Your task to perform on an android device: find photos in the google photos app Image 0: 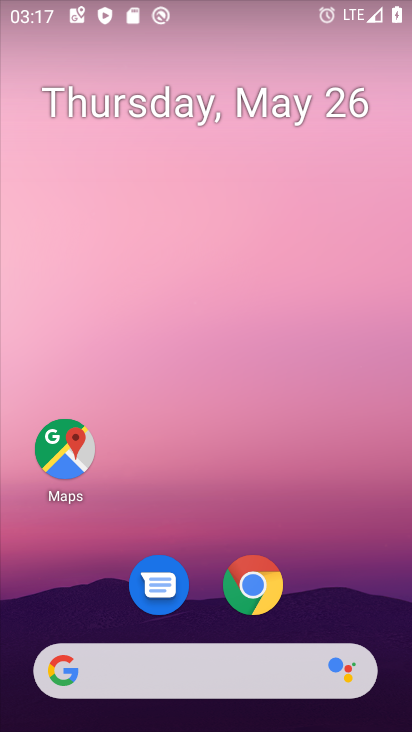
Step 0: drag from (210, 517) to (235, 132)
Your task to perform on an android device: find photos in the google photos app Image 1: 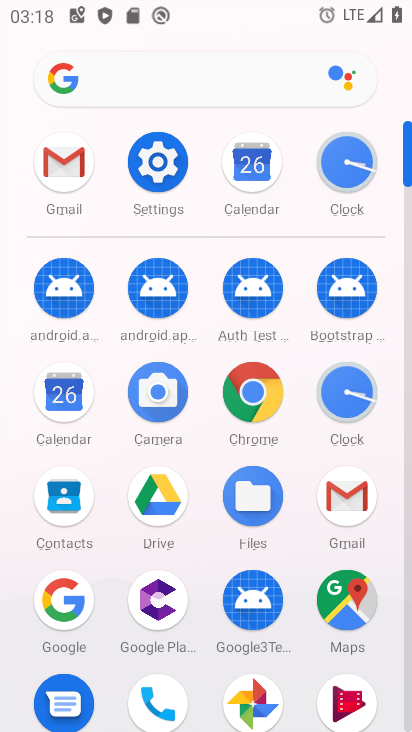
Step 1: click (255, 690)
Your task to perform on an android device: find photos in the google photos app Image 2: 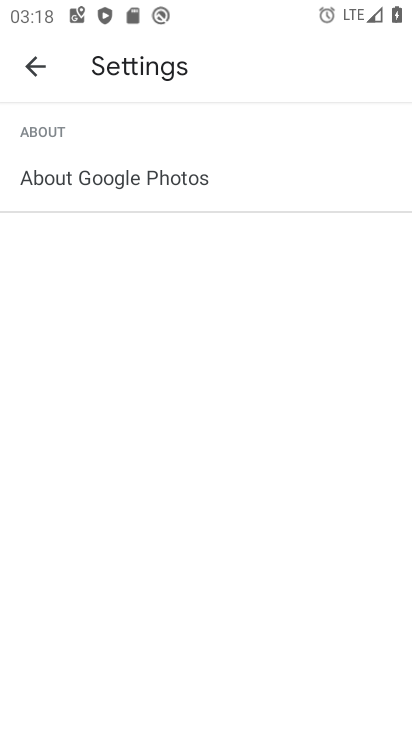
Step 2: click (34, 61)
Your task to perform on an android device: find photos in the google photos app Image 3: 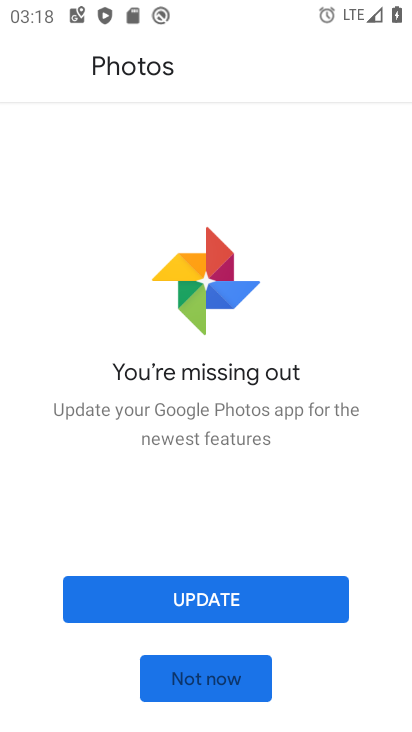
Step 3: click (184, 674)
Your task to perform on an android device: find photos in the google photos app Image 4: 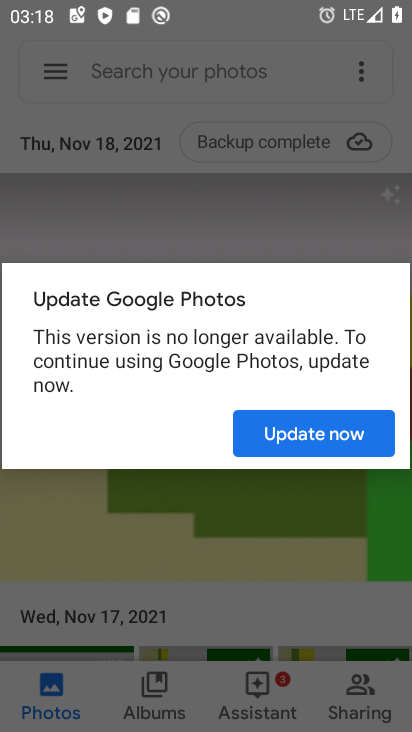
Step 4: click (341, 438)
Your task to perform on an android device: find photos in the google photos app Image 5: 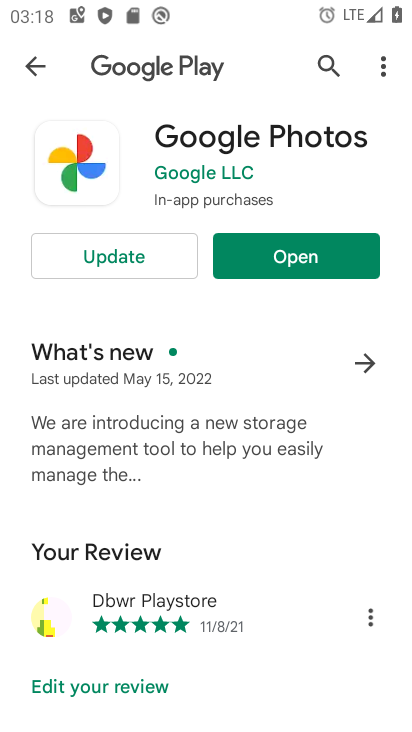
Step 5: click (323, 256)
Your task to perform on an android device: find photos in the google photos app Image 6: 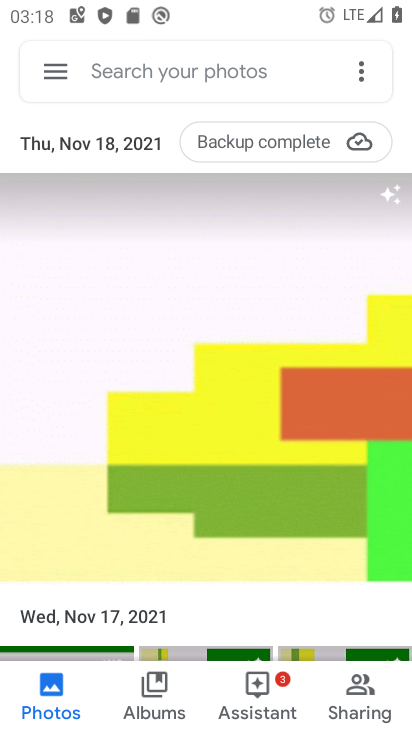
Step 6: task complete